Your task to perform on an android device: move an email to a new category in the gmail app Image 0: 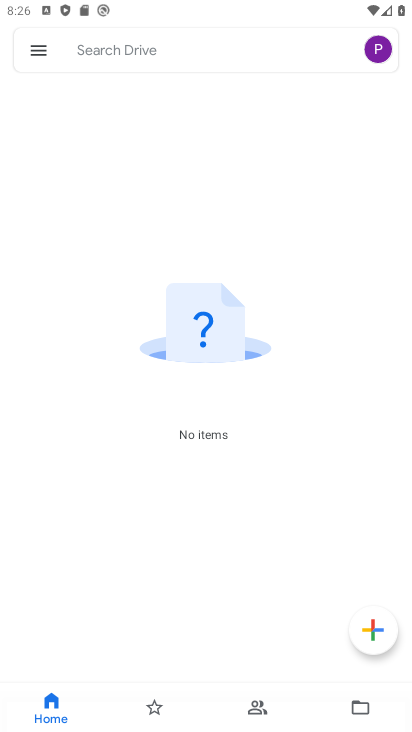
Step 0: press home button
Your task to perform on an android device: move an email to a new category in the gmail app Image 1: 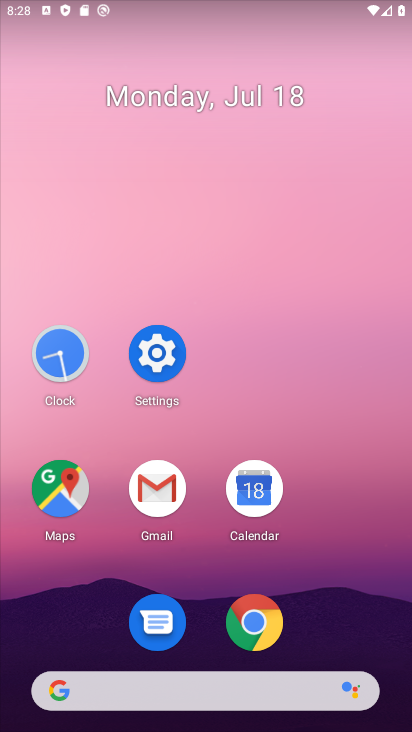
Step 1: click (165, 493)
Your task to perform on an android device: move an email to a new category in the gmail app Image 2: 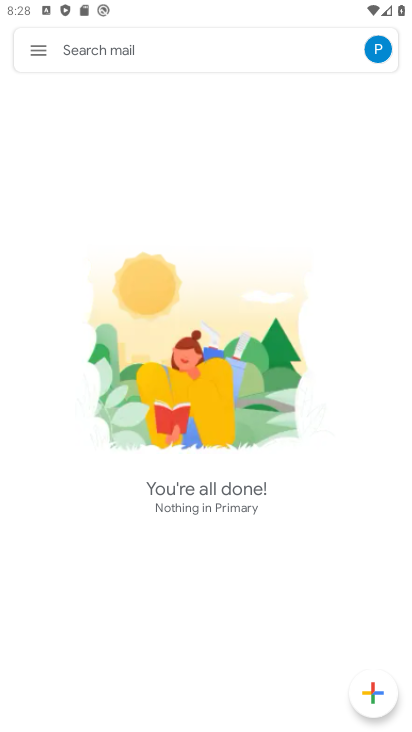
Step 2: task complete